Your task to perform on an android device: toggle location history Image 0: 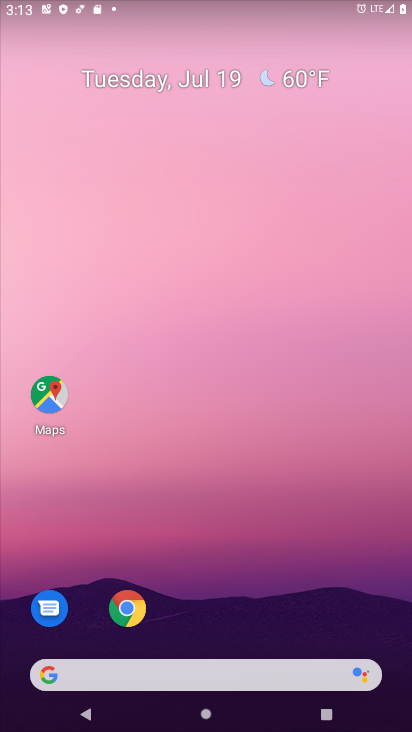
Step 0: drag from (304, 552) to (277, 81)
Your task to perform on an android device: toggle location history Image 1: 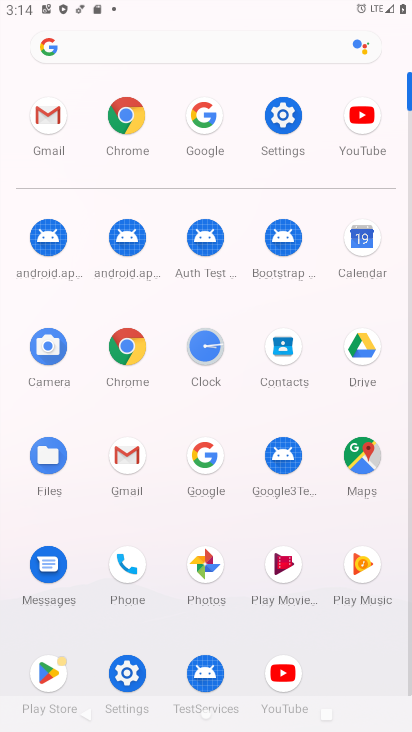
Step 1: click (289, 126)
Your task to perform on an android device: toggle location history Image 2: 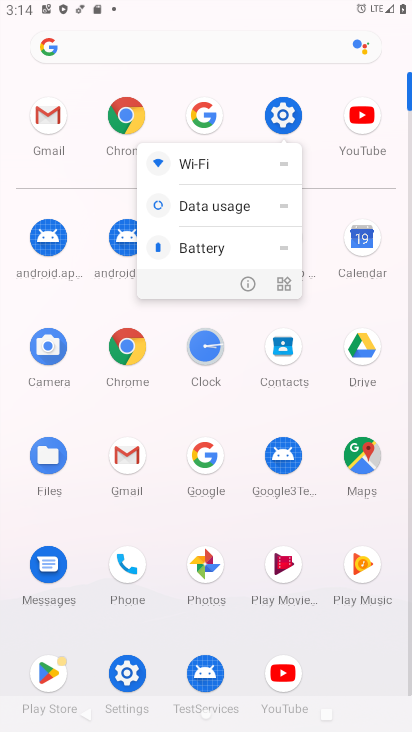
Step 2: click (268, 123)
Your task to perform on an android device: toggle location history Image 3: 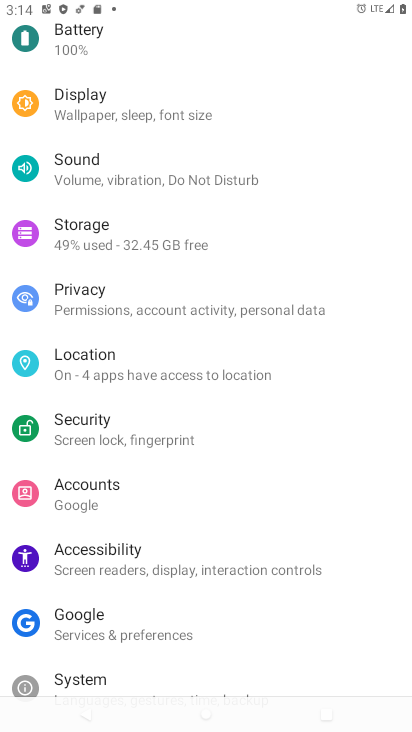
Step 3: click (116, 343)
Your task to perform on an android device: toggle location history Image 4: 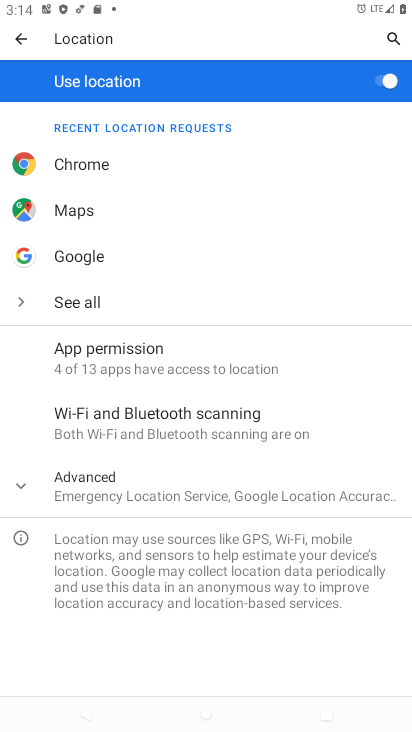
Step 4: click (110, 493)
Your task to perform on an android device: toggle location history Image 5: 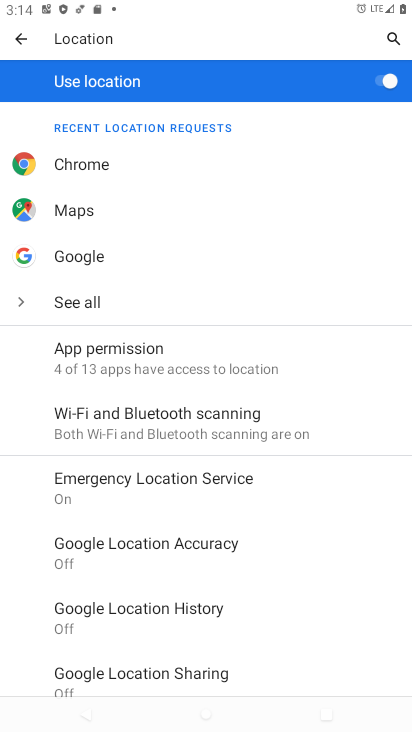
Step 5: drag from (202, 593) to (226, 220)
Your task to perform on an android device: toggle location history Image 6: 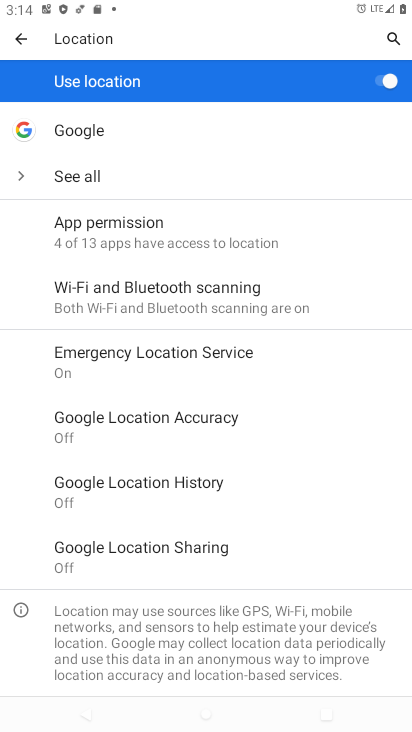
Step 6: click (188, 484)
Your task to perform on an android device: toggle location history Image 7: 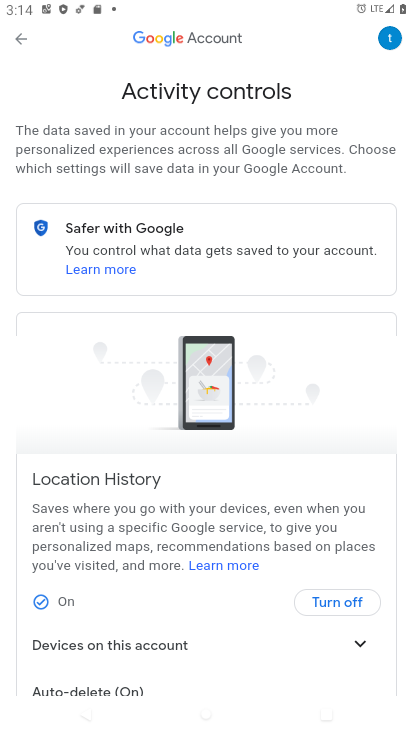
Step 7: click (344, 591)
Your task to perform on an android device: toggle location history Image 8: 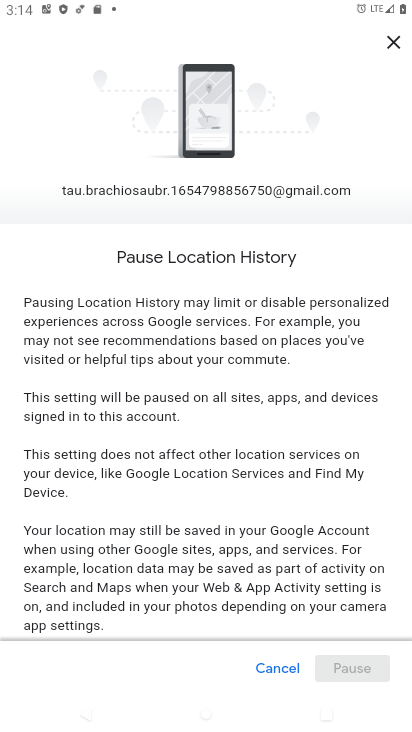
Step 8: drag from (286, 558) to (246, 145)
Your task to perform on an android device: toggle location history Image 9: 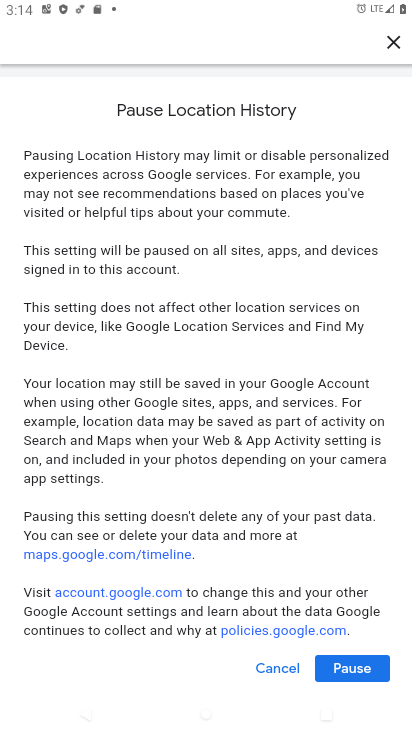
Step 9: click (351, 669)
Your task to perform on an android device: toggle location history Image 10: 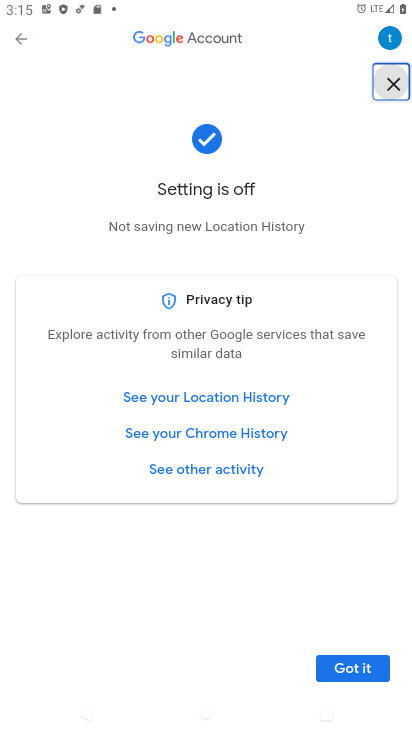
Step 10: click (348, 665)
Your task to perform on an android device: toggle location history Image 11: 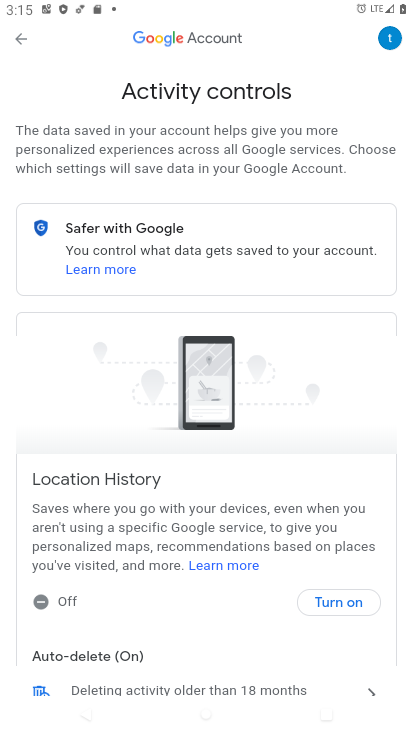
Step 11: click (345, 601)
Your task to perform on an android device: toggle location history Image 12: 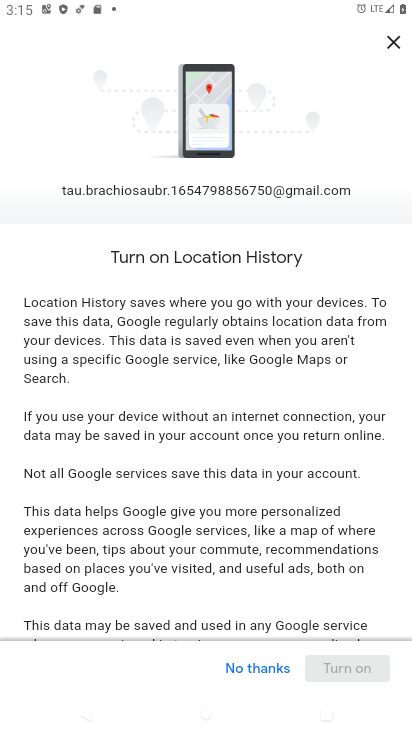
Step 12: drag from (259, 43) to (242, 7)
Your task to perform on an android device: toggle location history Image 13: 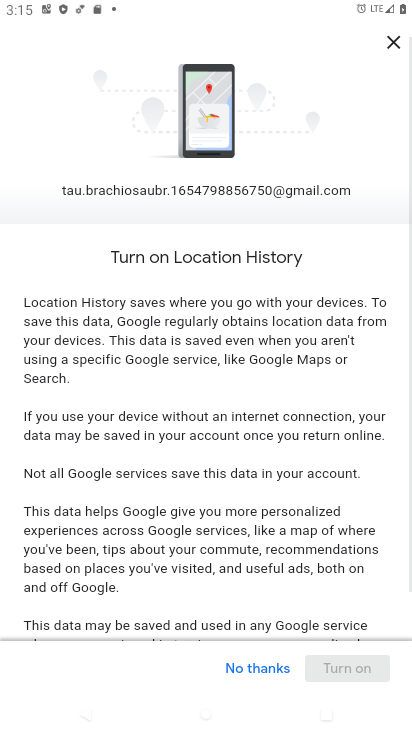
Step 13: drag from (251, 547) to (311, 128)
Your task to perform on an android device: toggle location history Image 14: 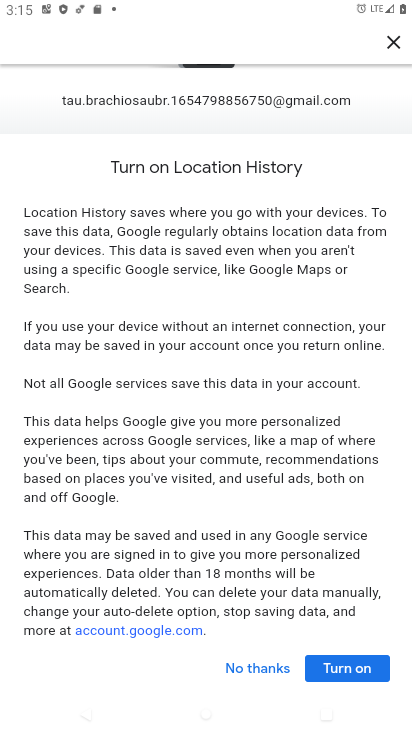
Step 14: click (376, 667)
Your task to perform on an android device: toggle location history Image 15: 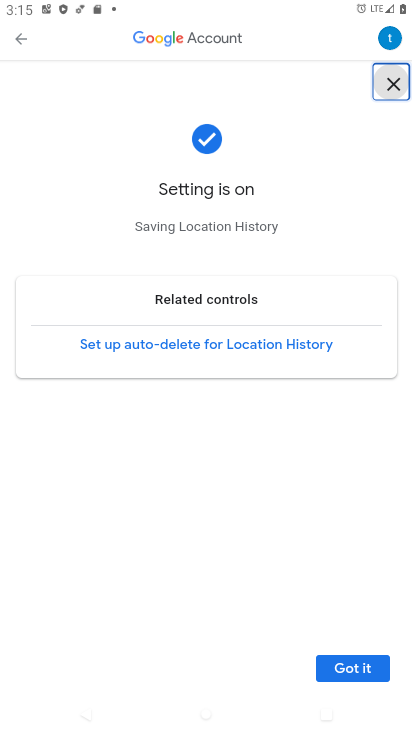
Step 15: task complete